Your task to perform on an android device: toggle location history Image 0: 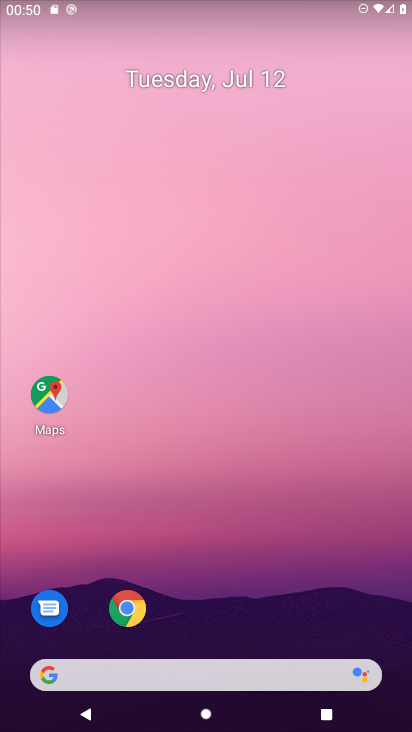
Step 0: drag from (201, 646) to (160, 64)
Your task to perform on an android device: toggle location history Image 1: 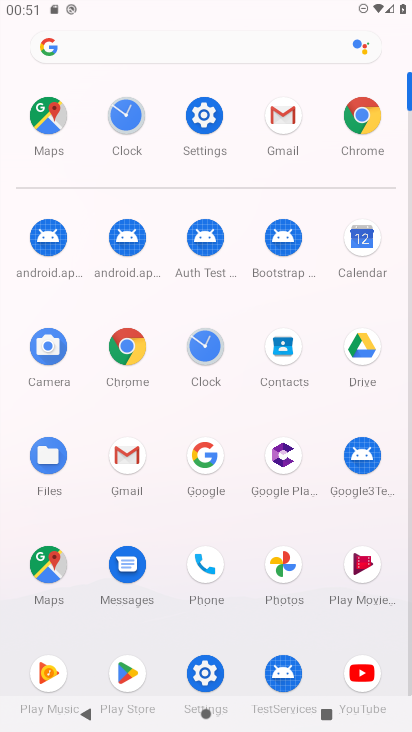
Step 1: click (210, 122)
Your task to perform on an android device: toggle location history Image 2: 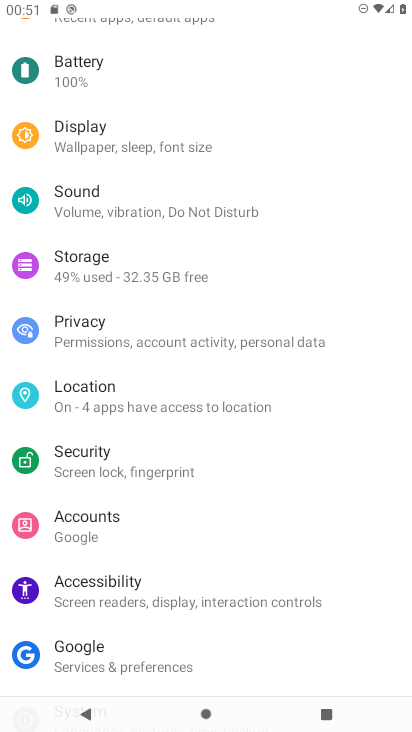
Step 2: click (76, 409)
Your task to perform on an android device: toggle location history Image 3: 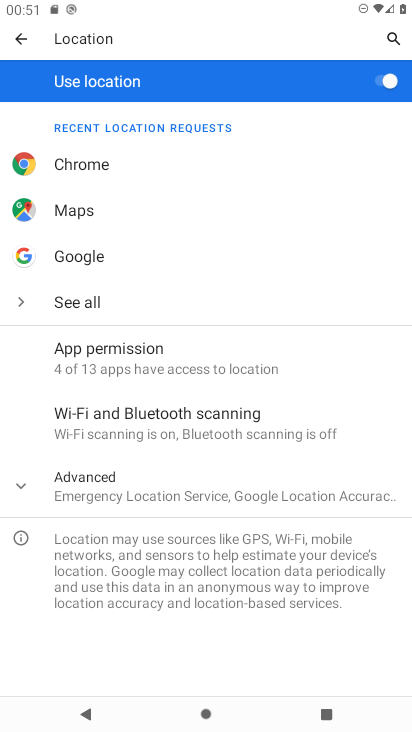
Step 3: click (293, 477)
Your task to perform on an android device: toggle location history Image 4: 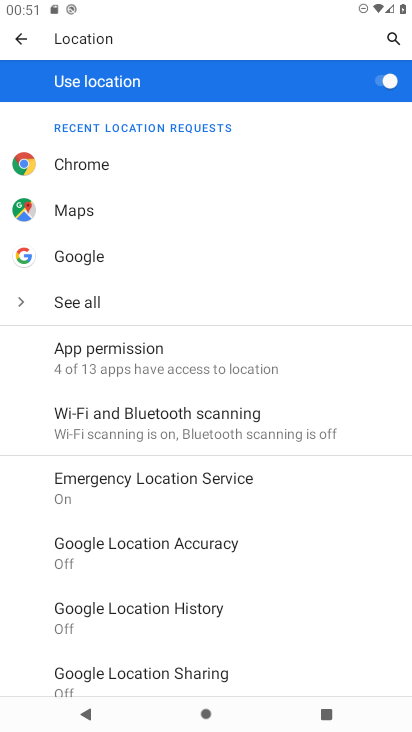
Step 4: click (180, 624)
Your task to perform on an android device: toggle location history Image 5: 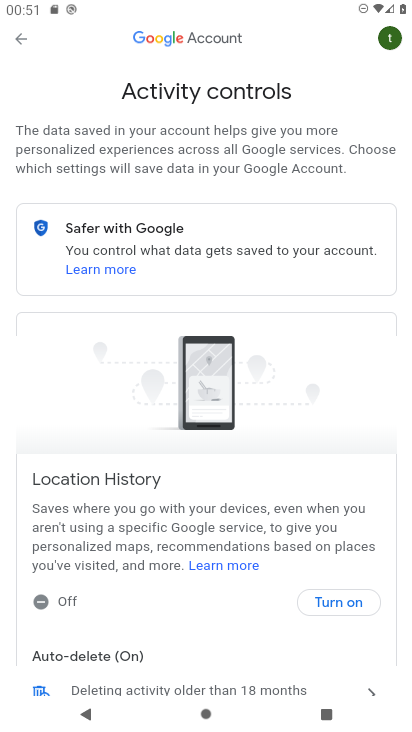
Step 5: click (341, 596)
Your task to perform on an android device: toggle location history Image 6: 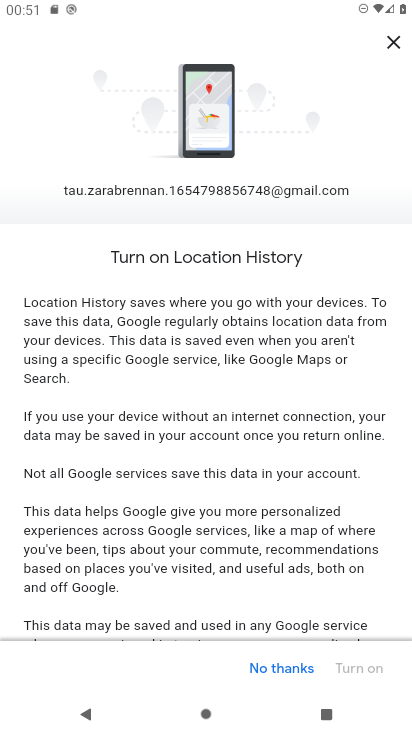
Step 6: drag from (260, 615) to (148, 35)
Your task to perform on an android device: toggle location history Image 7: 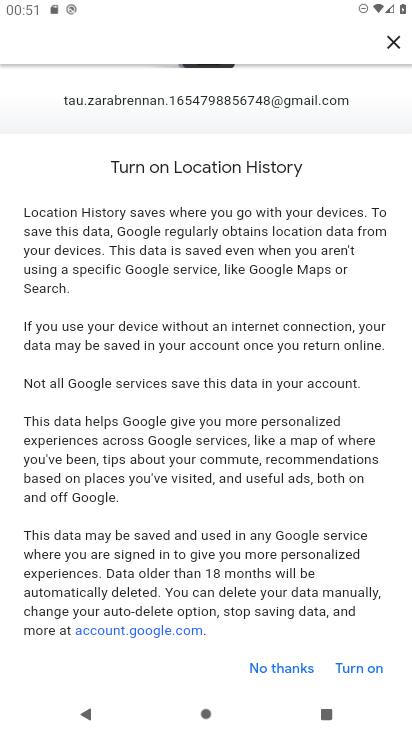
Step 7: click (355, 671)
Your task to perform on an android device: toggle location history Image 8: 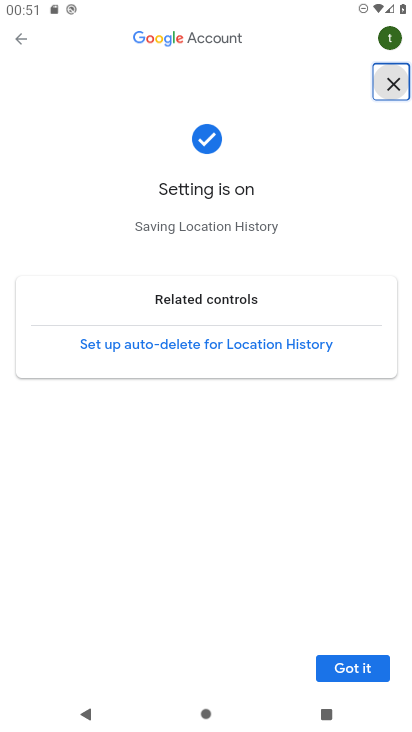
Step 8: click (352, 674)
Your task to perform on an android device: toggle location history Image 9: 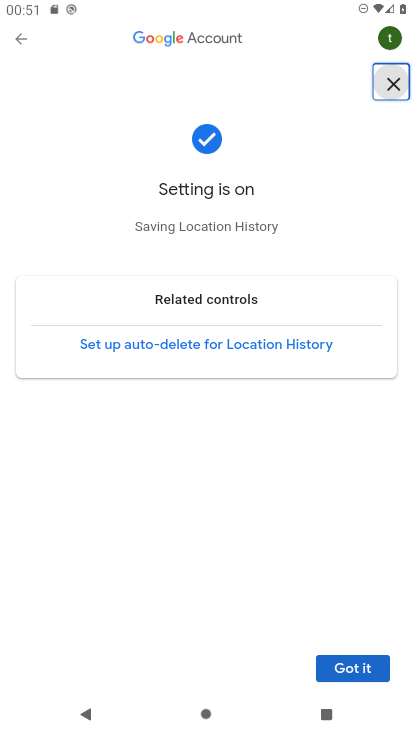
Step 9: task complete